Your task to perform on an android device: add a contact in the contacts app Image 0: 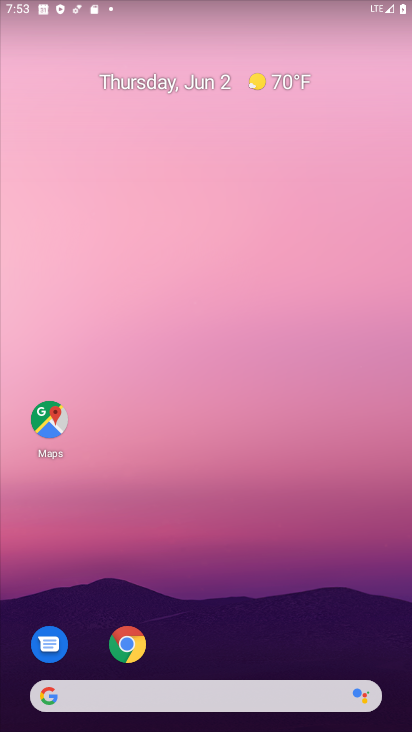
Step 0: drag from (211, 566) to (211, 26)
Your task to perform on an android device: add a contact in the contacts app Image 1: 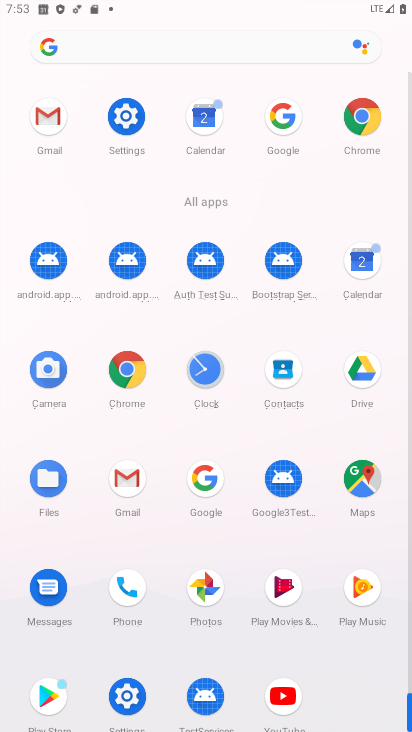
Step 1: drag from (14, 631) to (20, 265)
Your task to perform on an android device: add a contact in the contacts app Image 2: 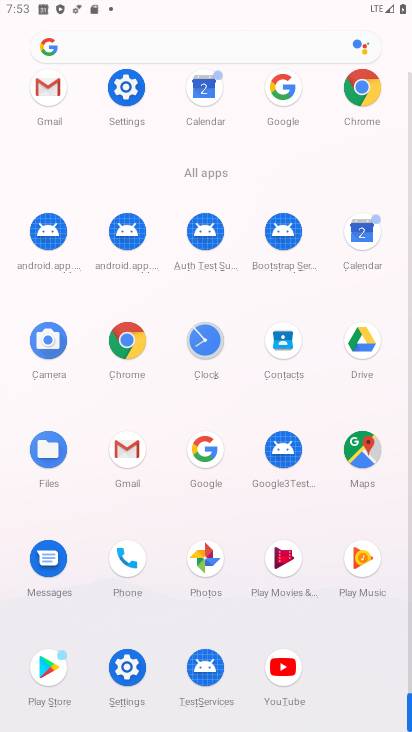
Step 2: click (278, 341)
Your task to perform on an android device: add a contact in the contacts app Image 3: 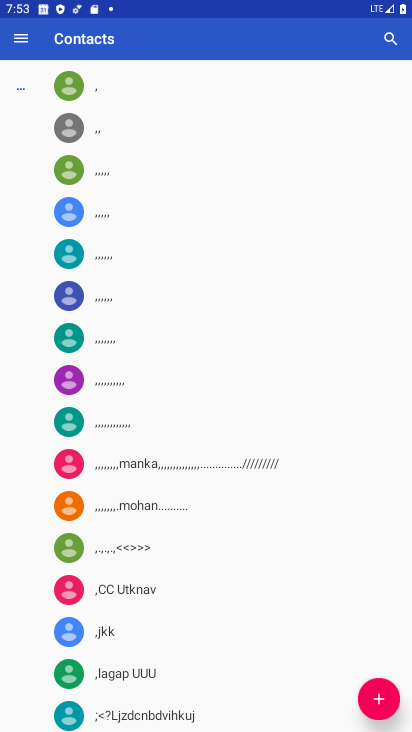
Step 3: click (376, 688)
Your task to perform on an android device: add a contact in the contacts app Image 4: 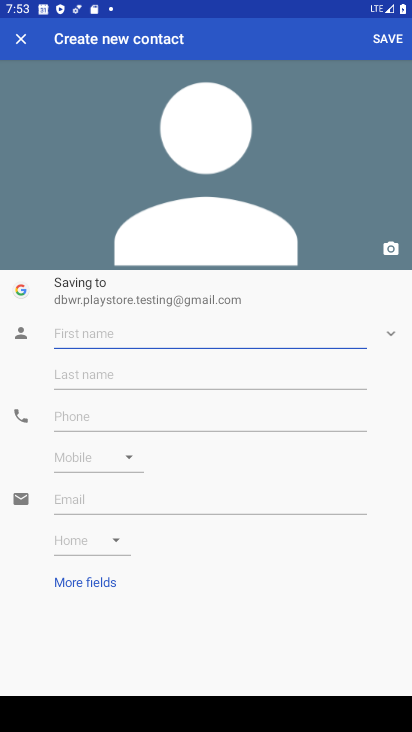
Step 4: type "Fhjk"
Your task to perform on an android device: add a contact in the contacts app Image 5: 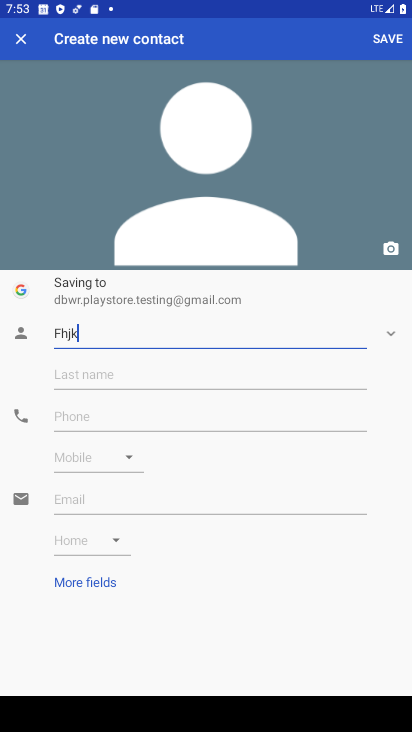
Step 5: type ""
Your task to perform on an android device: add a contact in the contacts app Image 6: 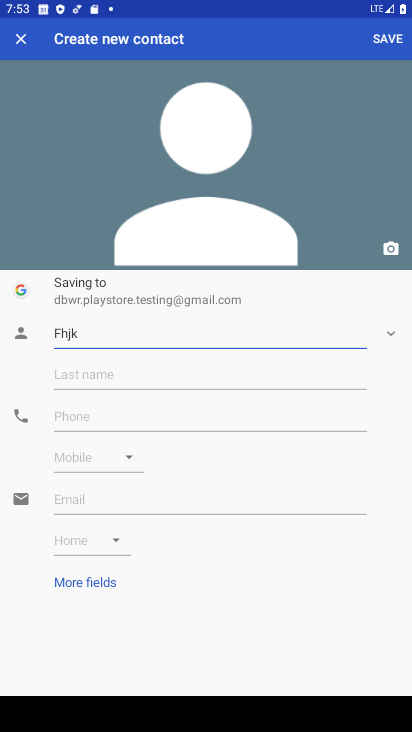
Step 6: click (79, 408)
Your task to perform on an android device: add a contact in the contacts app Image 7: 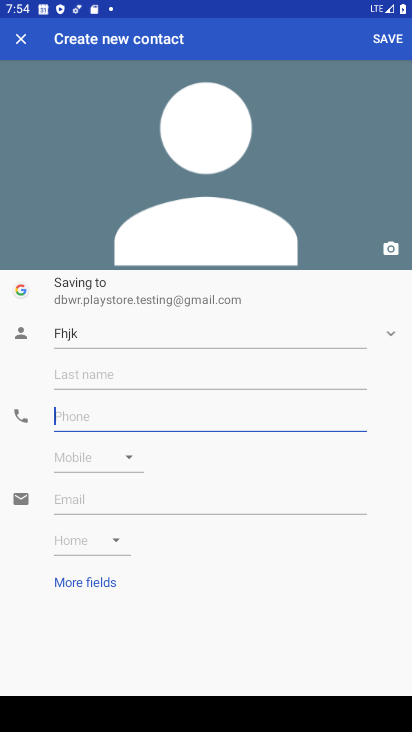
Step 7: type "3456789"
Your task to perform on an android device: add a contact in the contacts app Image 8: 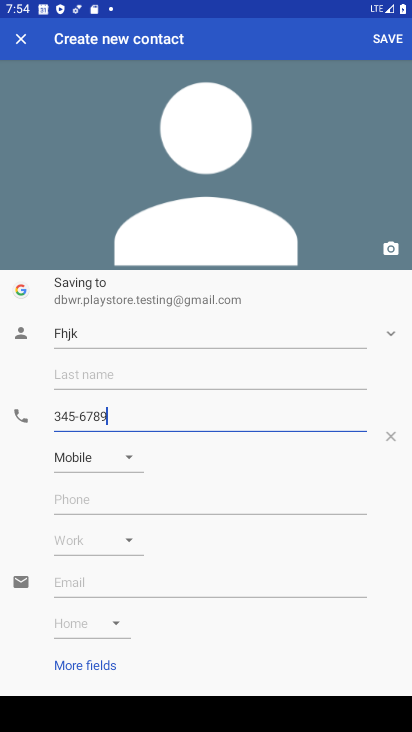
Step 8: type ""
Your task to perform on an android device: add a contact in the contacts app Image 9: 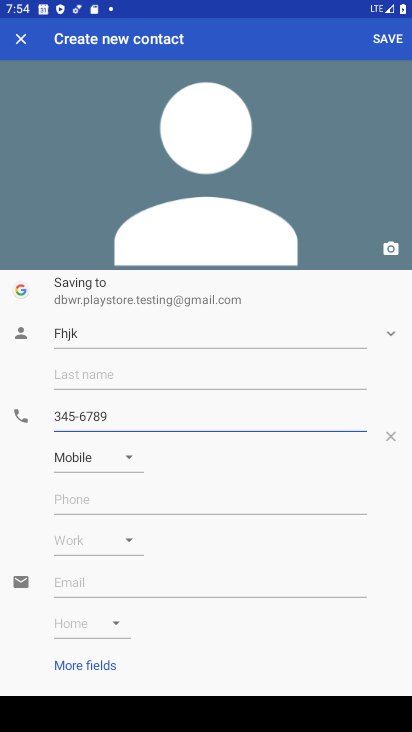
Step 9: click (385, 36)
Your task to perform on an android device: add a contact in the contacts app Image 10: 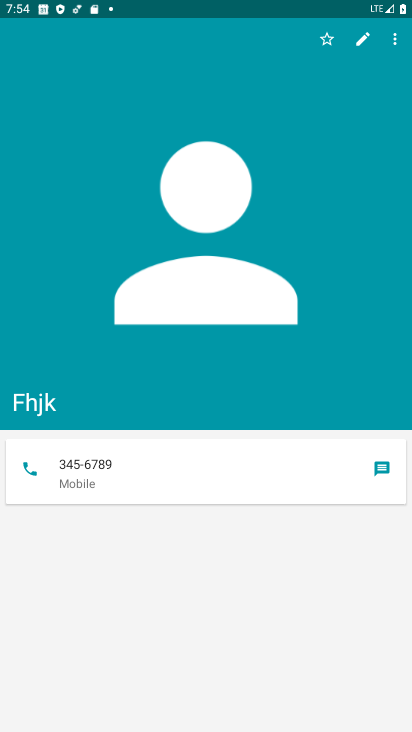
Step 10: task complete